Your task to perform on an android device: star an email in the gmail app Image 0: 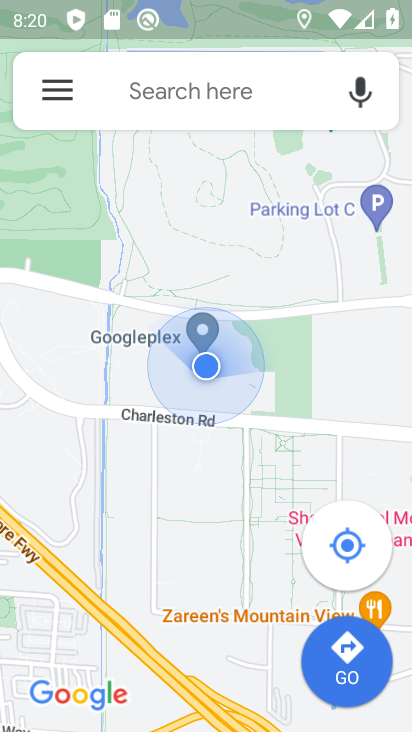
Step 0: press home button
Your task to perform on an android device: star an email in the gmail app Image 1: 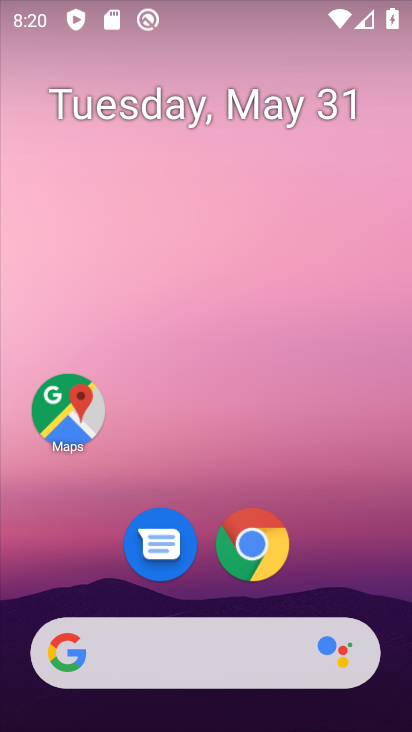
Step 1: drag from (247, 641) to (224, 79)
Your task to perform on an android device: star an email in the gmail app Image 2: 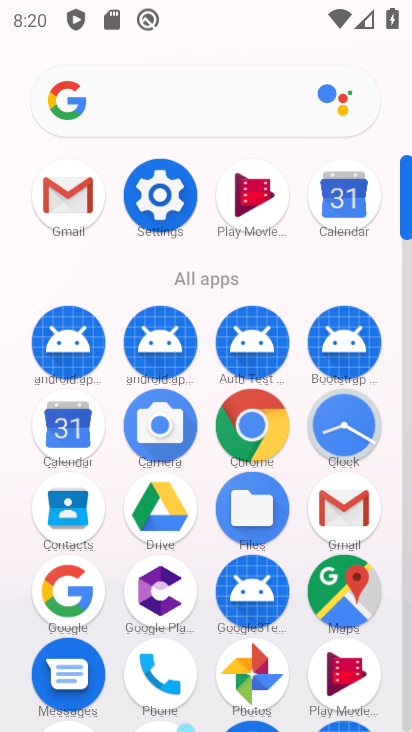
Step 2: click (74, 215)
Your task to perform on an android device: star an email in the gmail app Image 3: 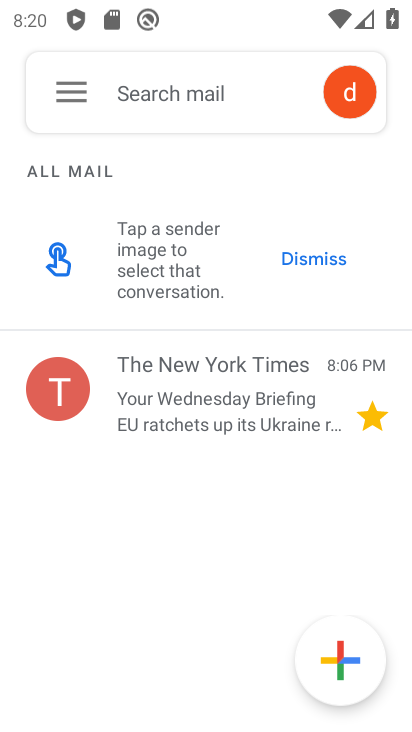
Step 3: task complete